Your task to perform on an android device: Search for flights from Sydney to Buenos aires Image 0: 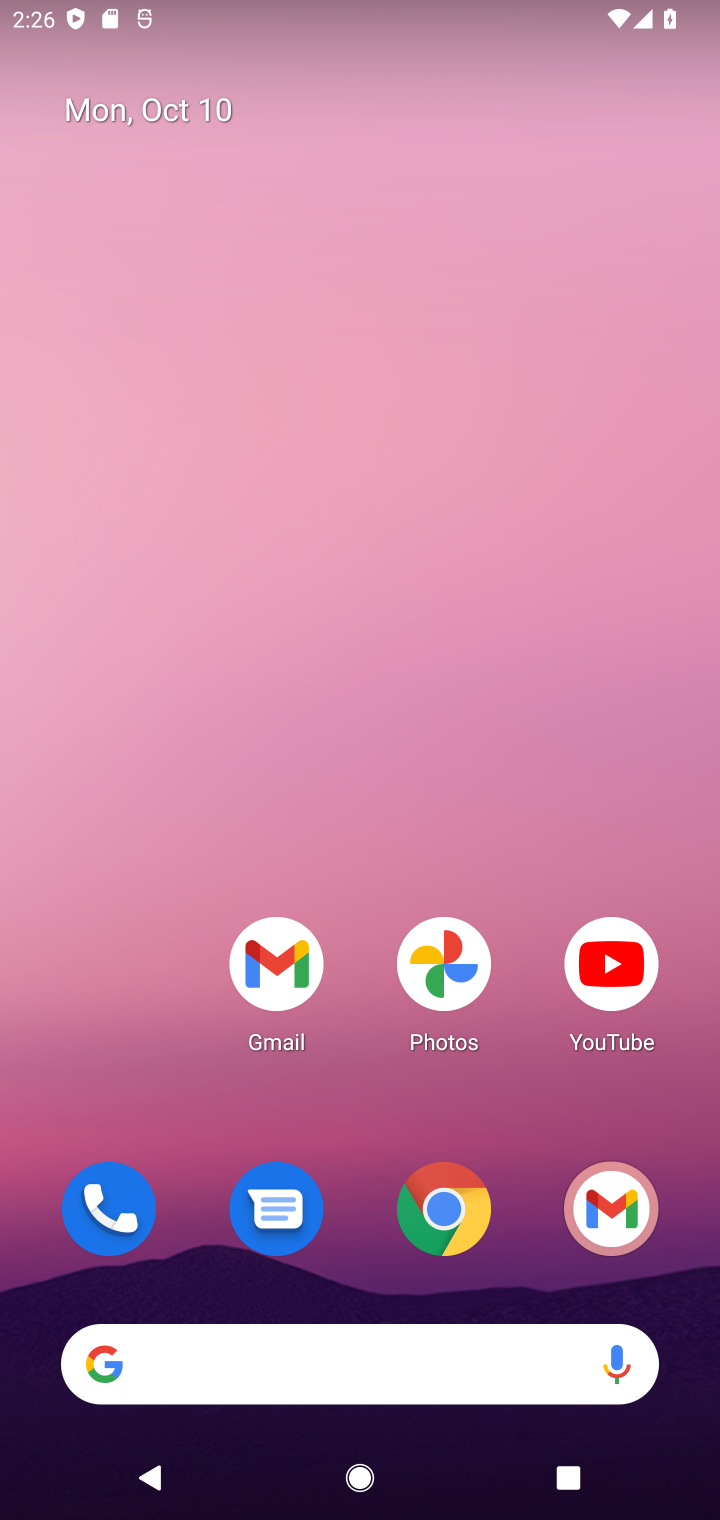
Step 0: click (428, 1197)
Your task to perform on an android device: Search for flights from Sydney to Buenos aires Image 1: 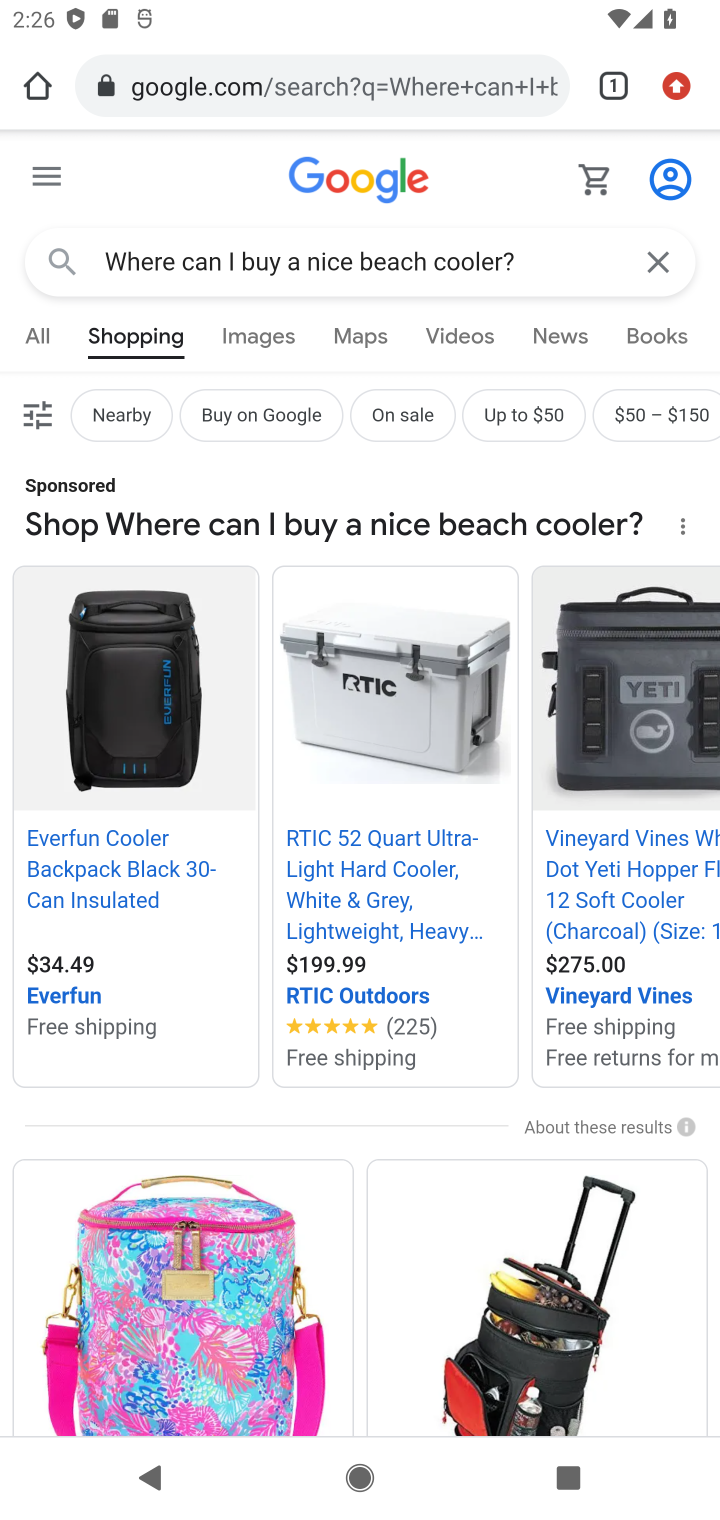
Step 1: click (644, 269)
Your task to perform on an android device: Search for flights from Sydney to Buenos aires Image 2: 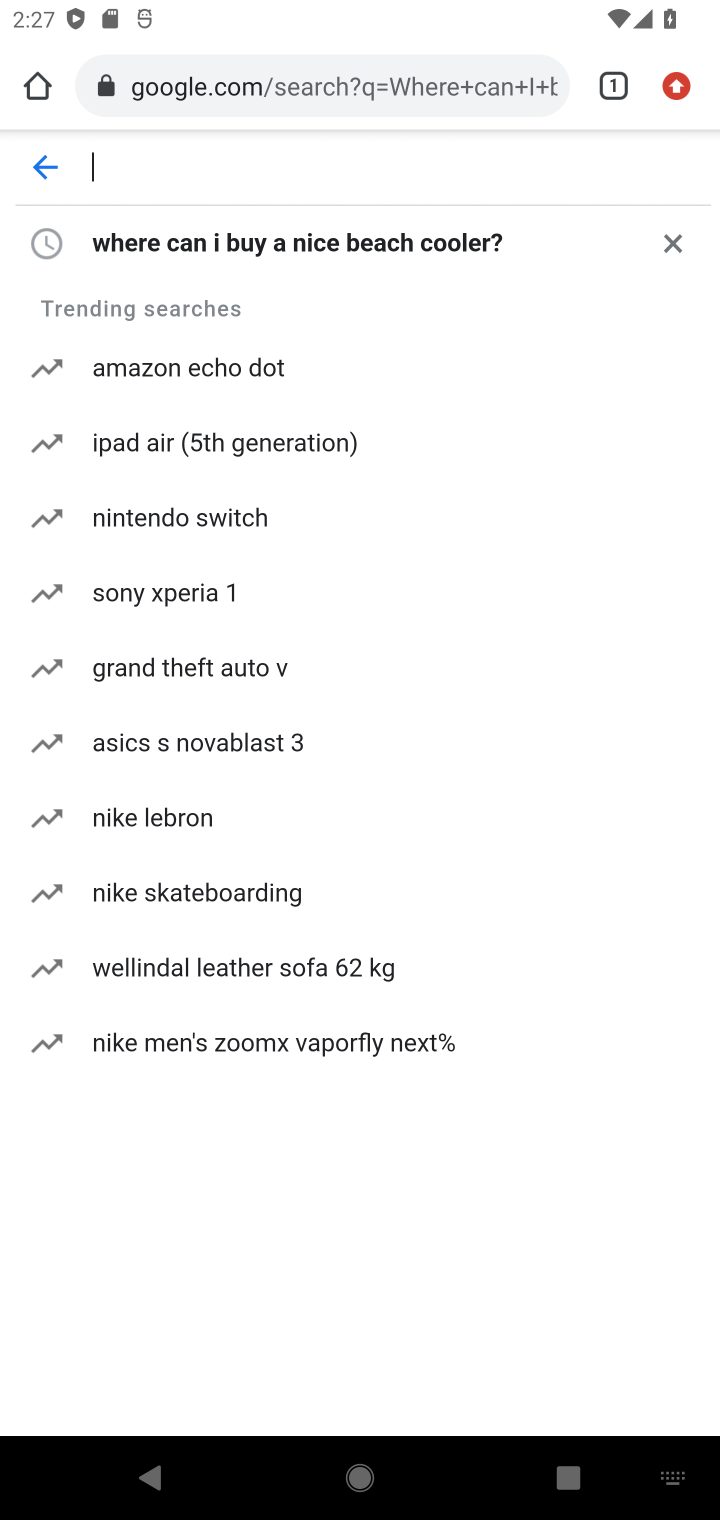
Step 2: type " flights from Sydney to Buenos aires"
Your task to perform on an android device: Search for flights from Sydney to Buenos aires Image 3: 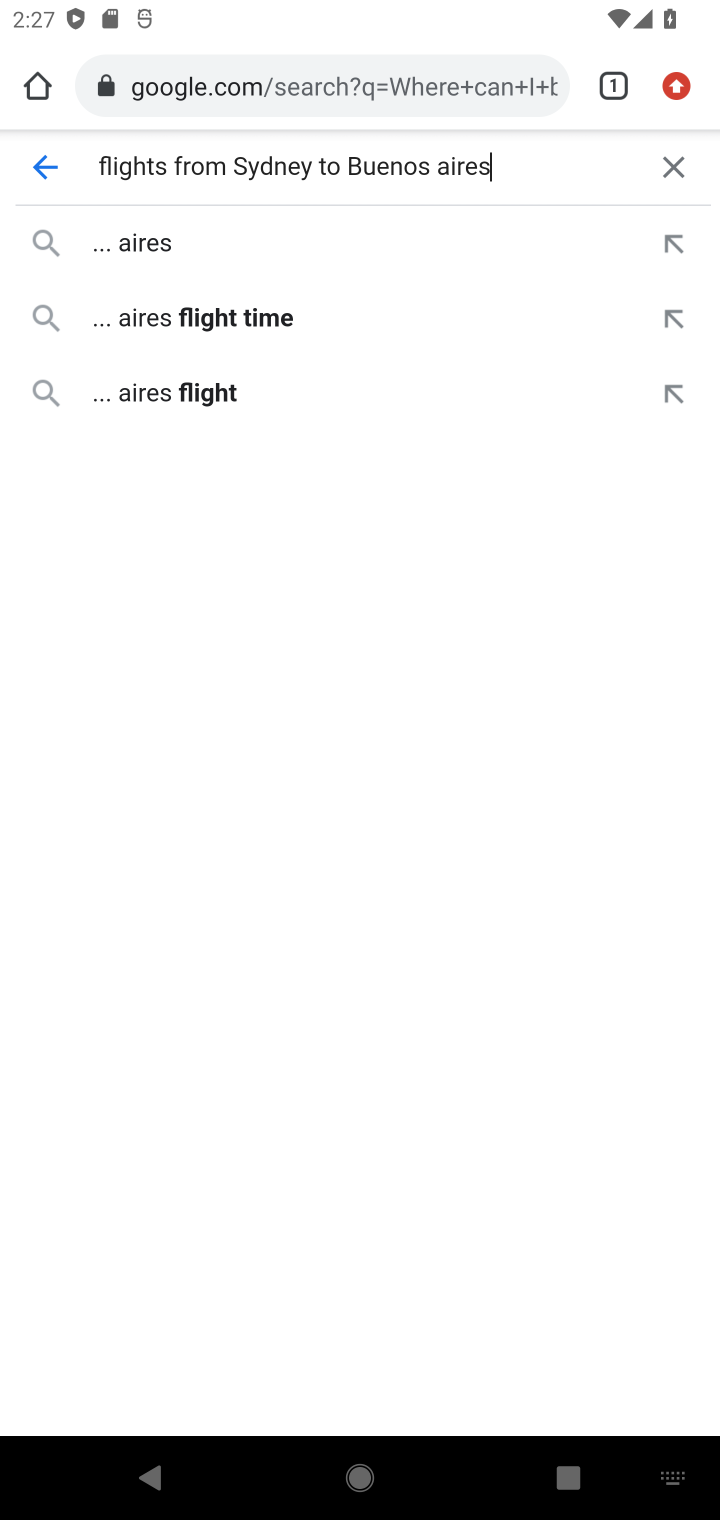
Step 3: press enter
Your task to perform on an android device: Search for flights from Sydney to Buenos aires Image 4: 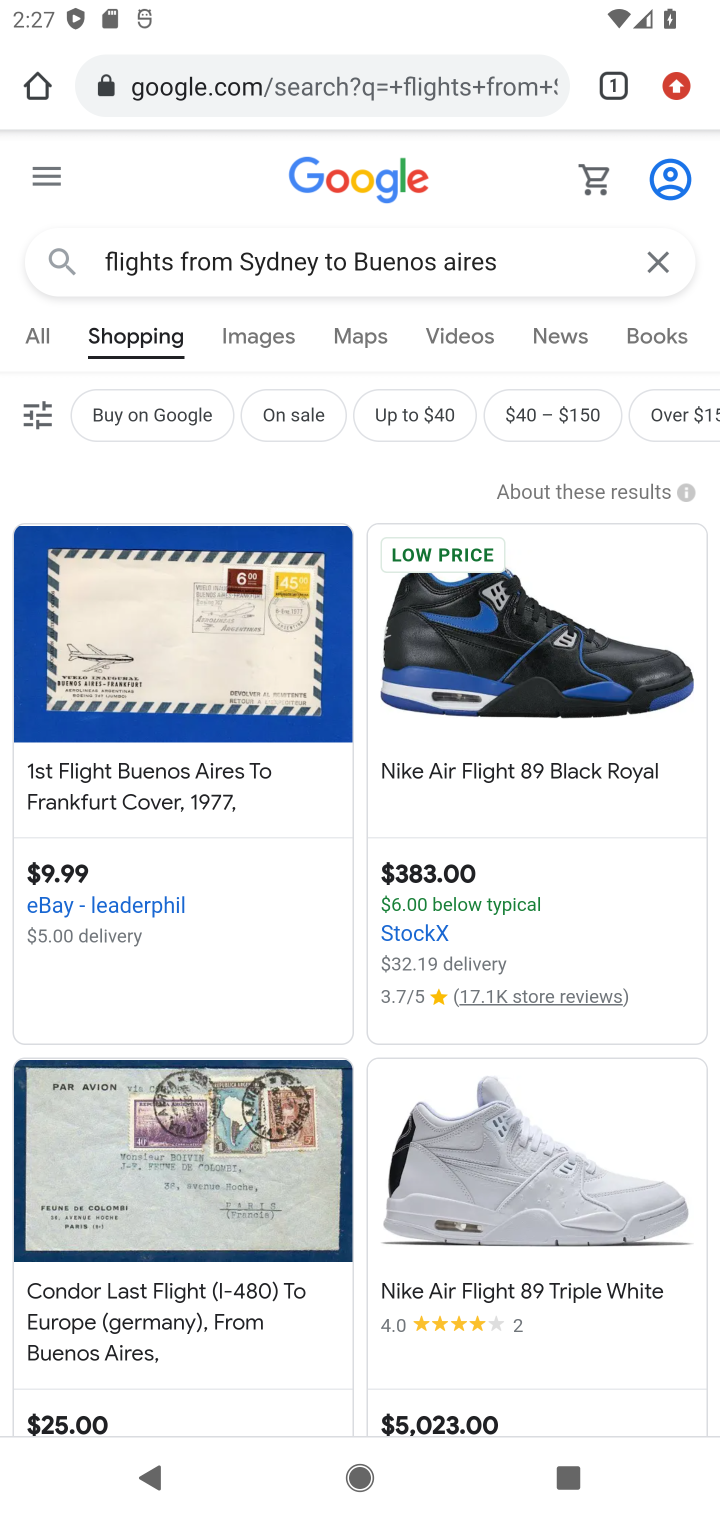
Step 4: click (37, 340)
Your task to perform on an android device: Search for flights from Sydney to Buenos aires Image 5: 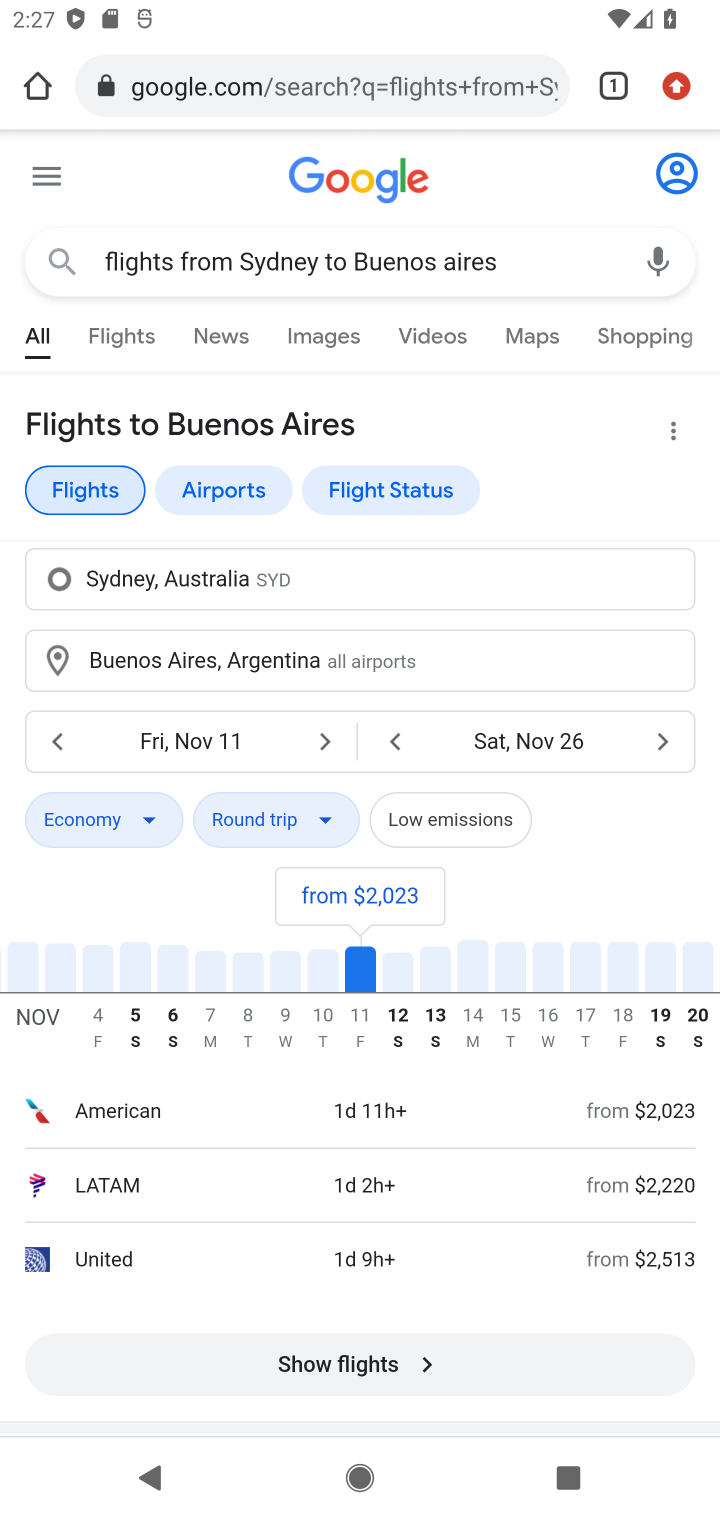
Step 5: task complete